Your task to perform on an android device: add a contact in the contacts app Image 0: 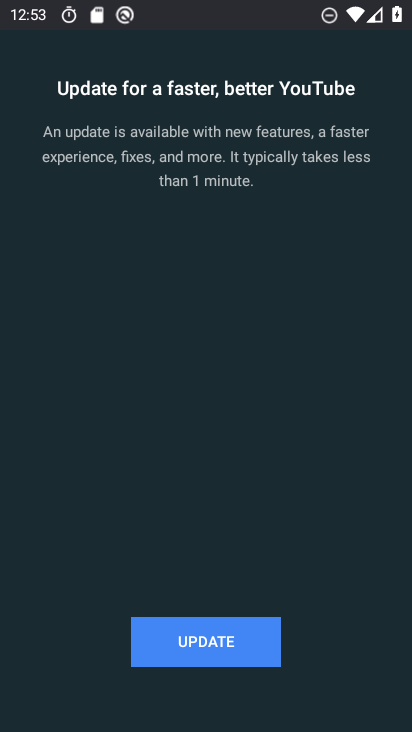
Step 0: press home button
Your task to perform on an android device: add a contact in the contacts app Image 1: 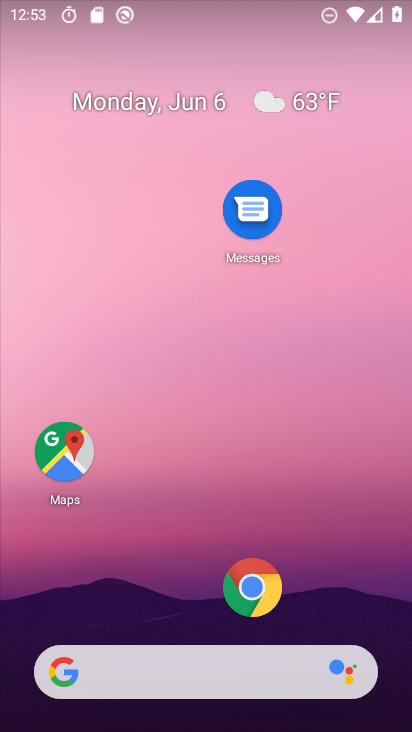
Step 1: drag from (127, 604) to (127, 141)
Your task to perform on an android device: add a contact in the contacts app Image 2: 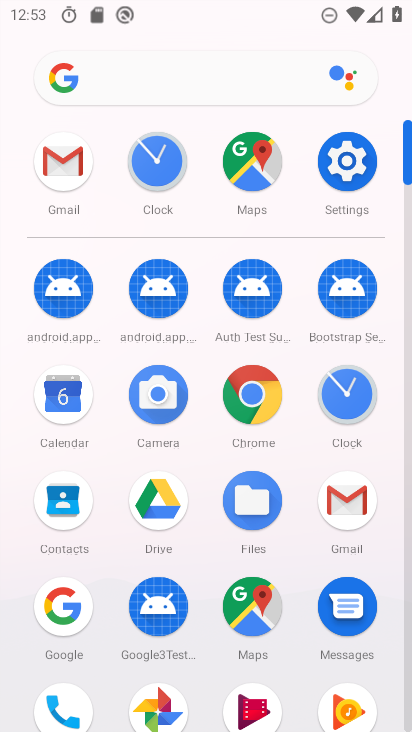
Step 2: click (62, 487)
Your task to perform on an android device: add a contact in the contacts app Image 3: 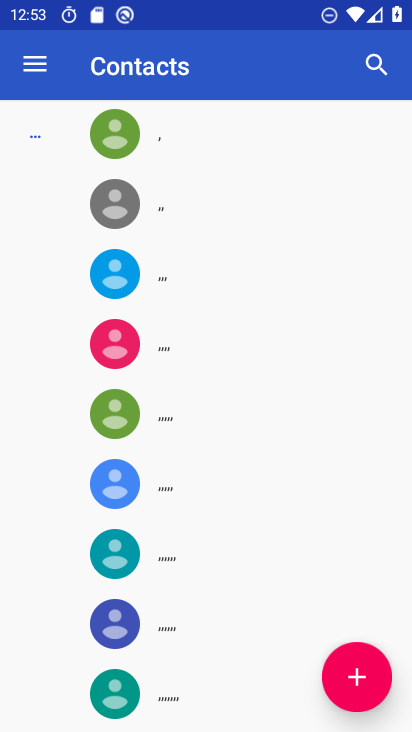
Step 3: click (364, 691)
Your task to perform on an android device: add a contact in the contacts app Image 4: 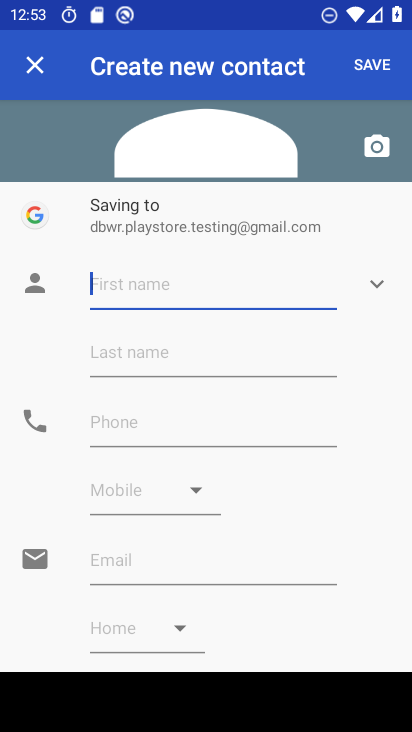
Step 4: type "cb"
Your task to perform on an android device: add a contact in the contacts app Image 5: 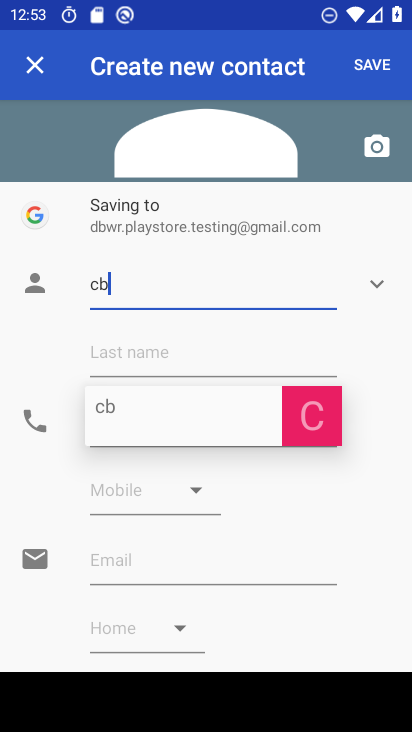
Step 5: click (115, 415)
Your task to perform on an android device: add a contact in the contacts app Image 6: 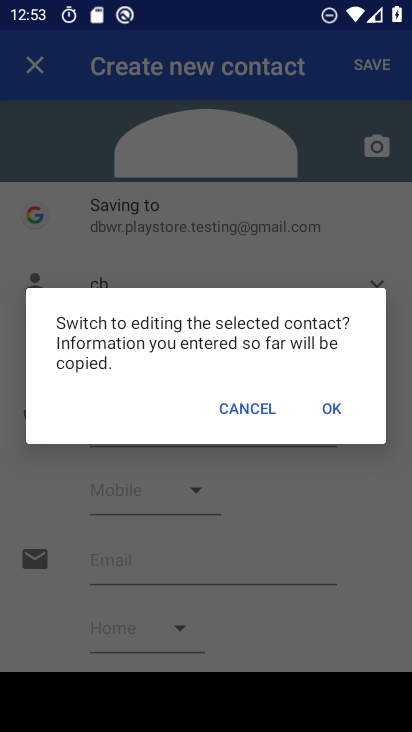
Step 6: click (233, 409)
Your task to perform on an android device: add a contact in the contacts app Image 7: 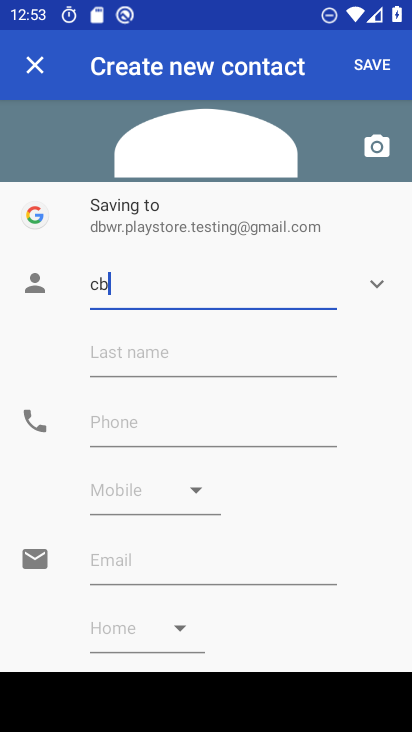
Step 7: type "oiujhgfvcx"
Your task to perform on an android device: add a contact in the contacts app Image 8: 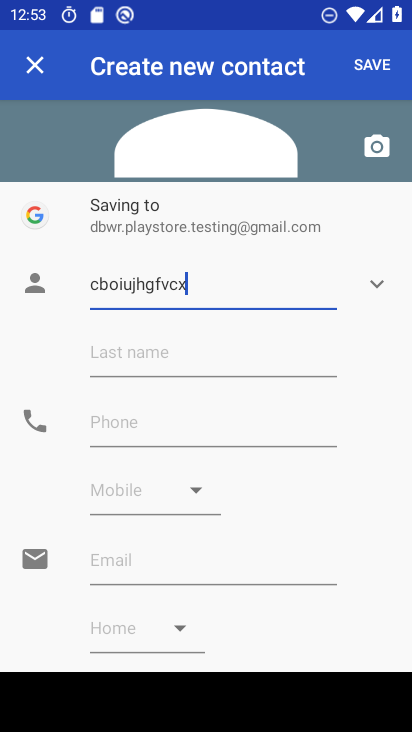
Step 8: click (162, 405)
Your task to perform on an android device: add a contact in the contacts app Image 9: 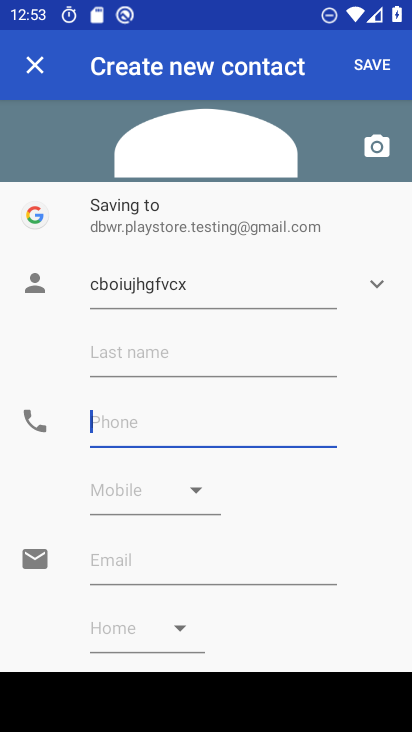
Step 9: type "09876543w4"
Your task to perform on an android device: add a contact in the contacts app Image 10: 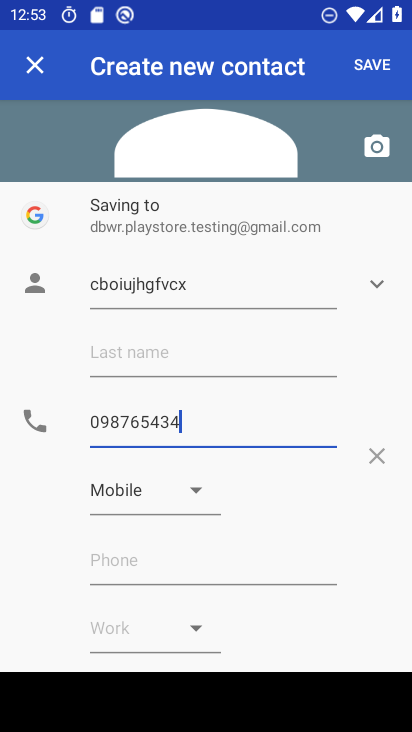
Step 10: click (385, 80)
Your task to perform on an android device: add a contact in the contacts app Image 11: 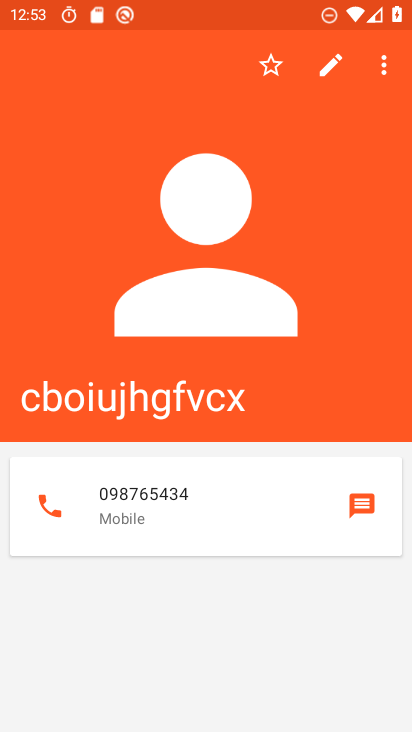
Step 11: task complete